Your task to perform on an android device: Open settings Image 0: 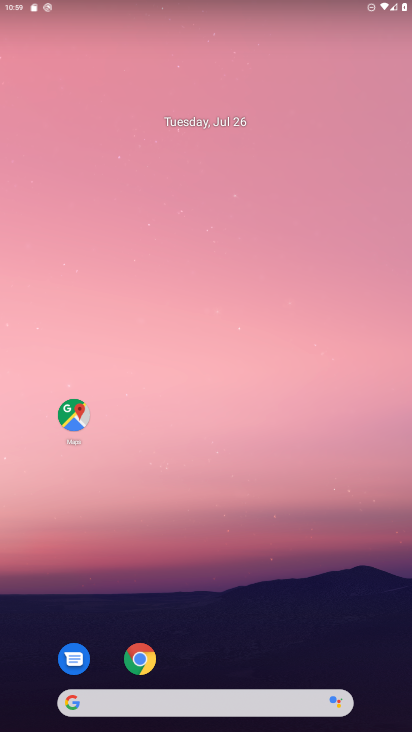
Step 0: drag from (382, 716) to (281, 52)
Your task to perform on an android device: Open settings Image 1: 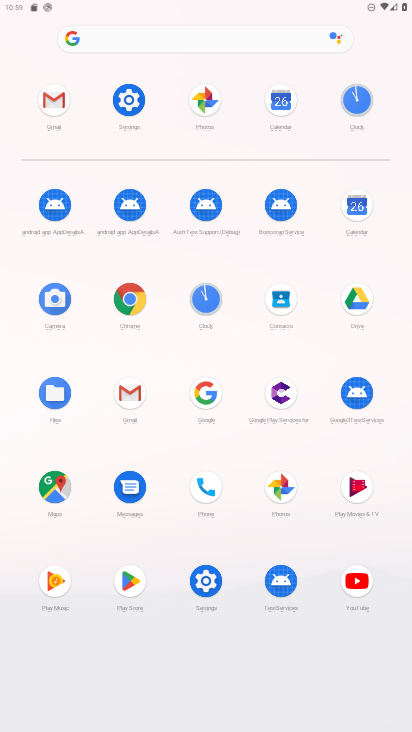
Step 1: click (216, 574)
Your task to perform on an android device: Open settings Image 2: 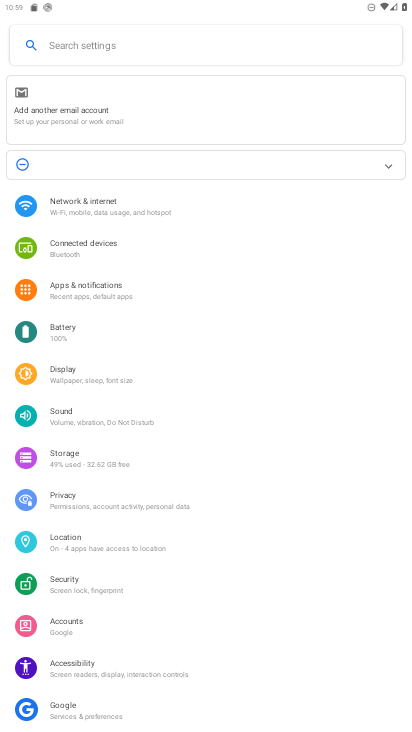
Step 2: task complete